Your task to perform on an android device: search for starred emails in the gmail app Image 0: 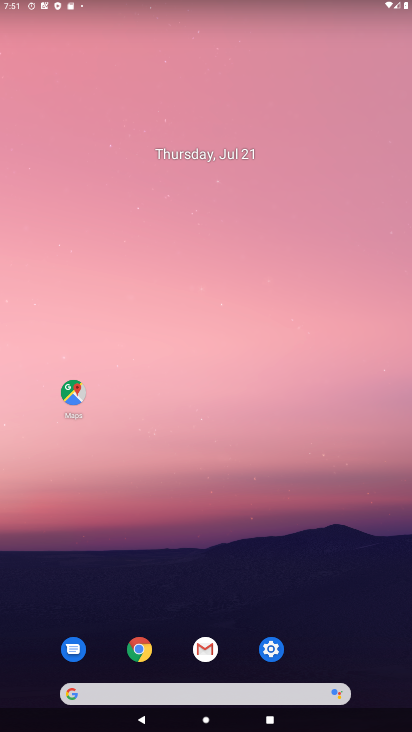
Step 0: click (201, 657)
Your task to perform on an android device: search for starred emails in the gmail app Image 1: 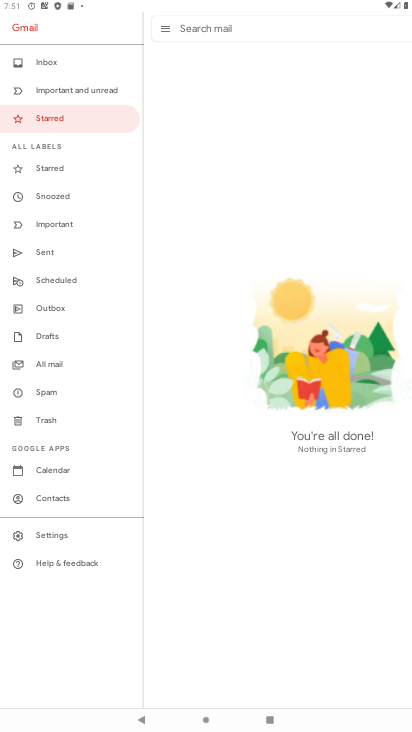
Step 1: task complete